Your task to perform on an android device: When is my next appointment? Image 0: 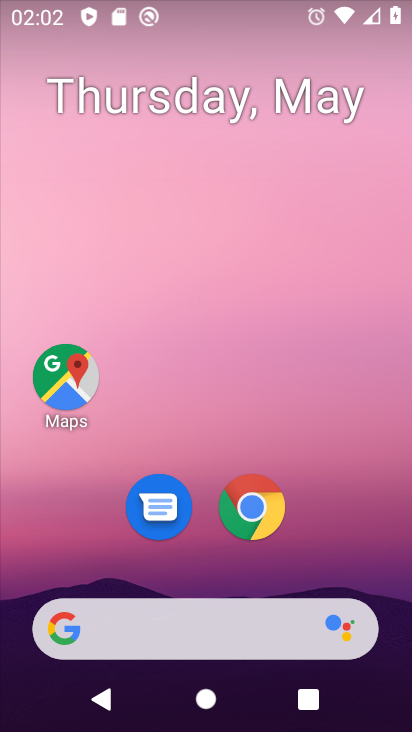
Step 0: drag from (388, 584) to (358, 211)
Your task to perform on an android device: When is my next appointment? Image 1: 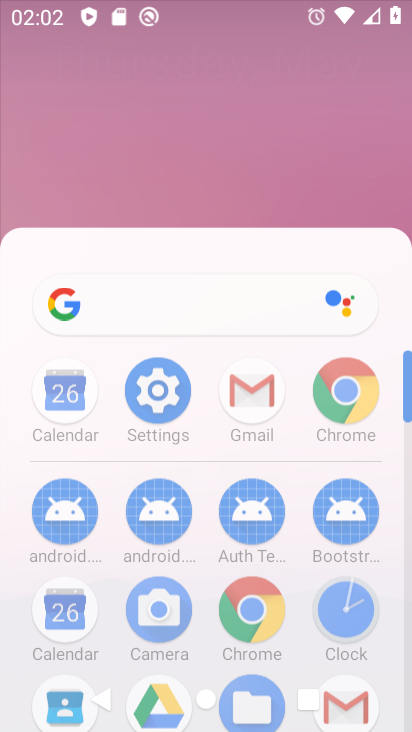
Step 1: click (358, 211)
Your task to perform on an android device: When is my next appointment? Image 2: 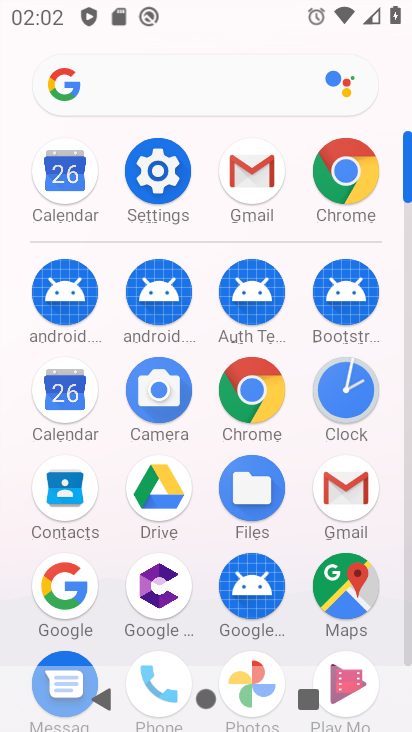
Step 2: click (81, 183)
Your task to perform on an android device: When is my next appointment? Image 3: 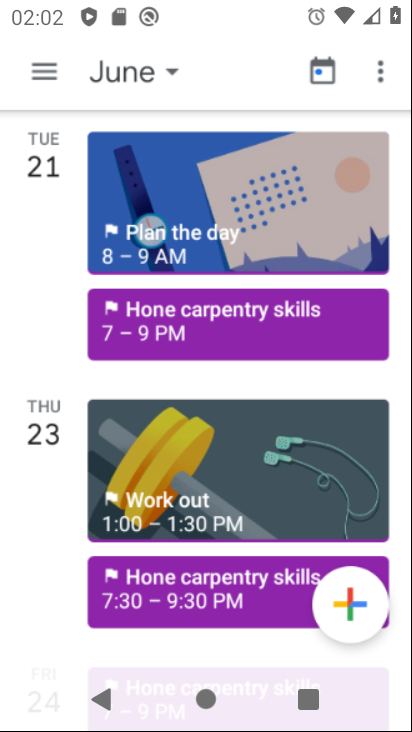
Step 3: task complete